Your task to perform on an android device: Set the phone to "Do not disturb". Image 0: 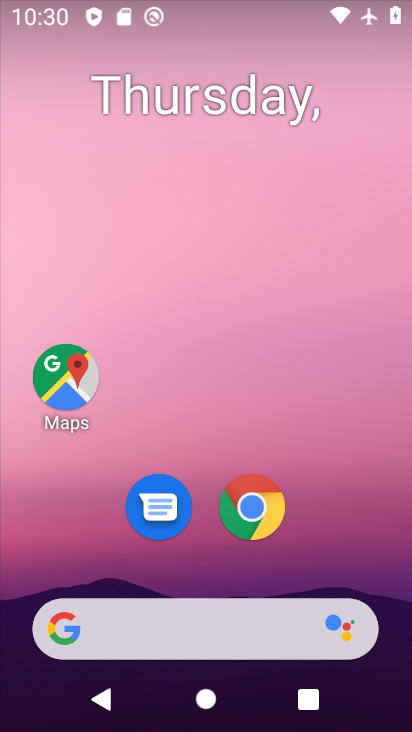
Step 0: drag from (341, 568) to (316, 21)
Your task to perform on an android device: Set the phone to "Do not disturb". Image 1: 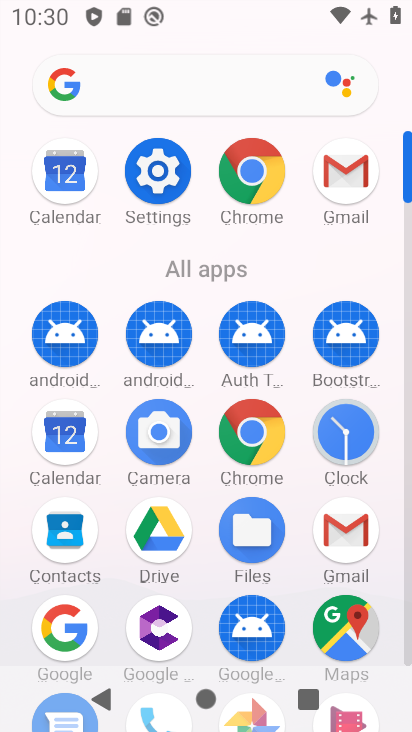
Step 1: drag from (11, 559) to (11, 224)
Your task to perform on an android device: Set the phone to "Do not disturb". Image 2: 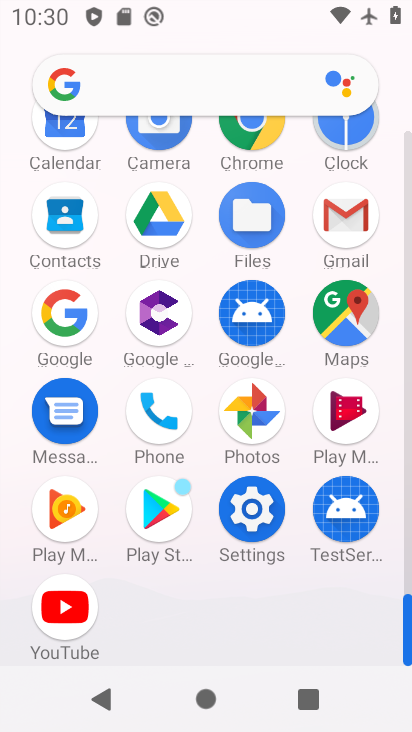
Step 2: click (249, 506)
Your task to perform on an android device: Set the phone to "Do not disturb". Image 3: 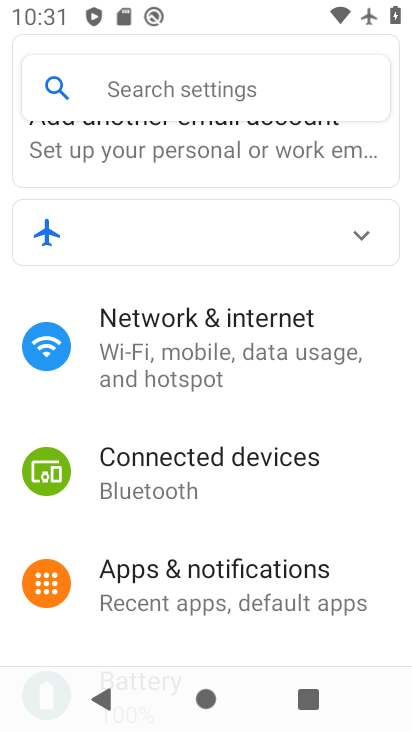
Step 3: drag from (293, 608) to (329, 178)
Your task to perform on an android device: Set the phone to "Do not disturb". Image 4: 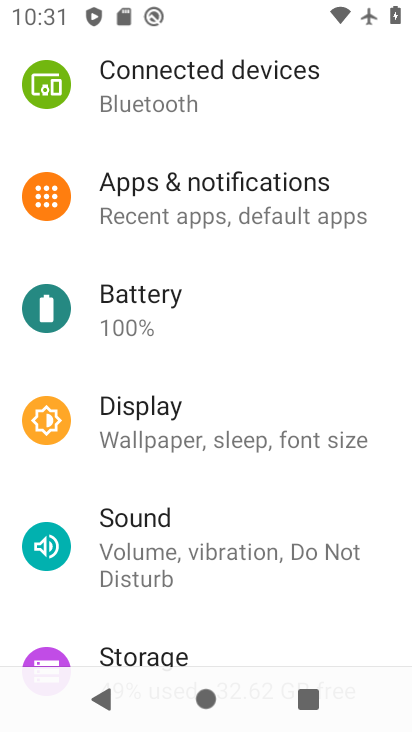
Step 4: click (198, 543)
Your task to perform on an android device: Set the phone to "Do not disturb". Image 5: 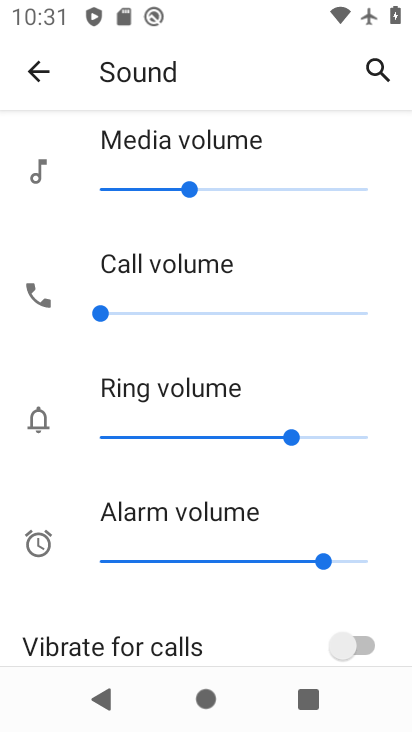
Step 5: drag from (211, 595) to (238, 84)
Your task to perform on an android device: Set the phone to "Do not disturb". Image 6: 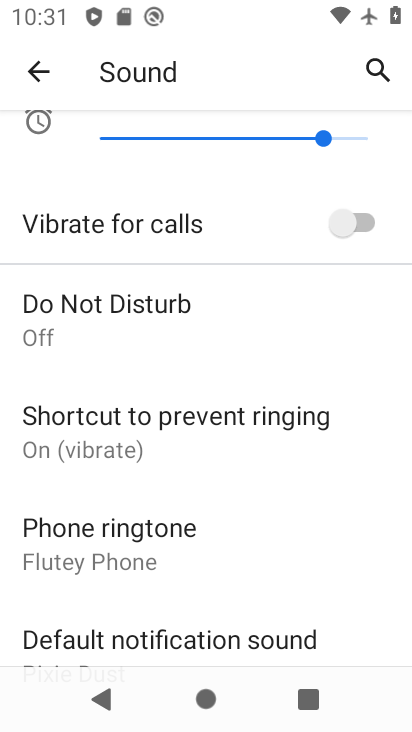
Step 6: drag from (200, 545) to (228, 226)
Your task to perform on an android device: Set the phone to "Do not disturb". Image 7: 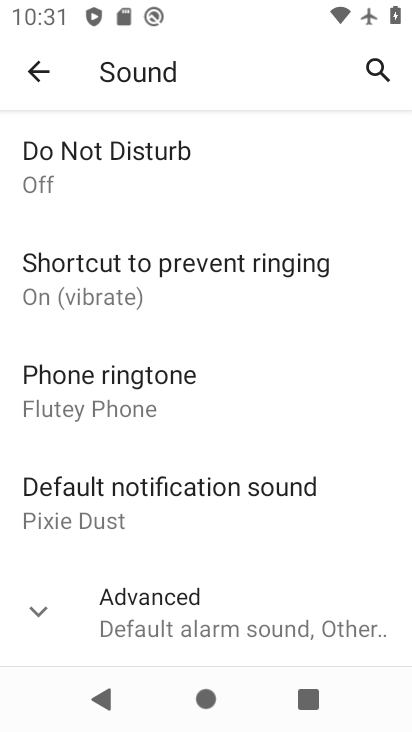
Step 7: click (152, 148)
Your task to perform on an android device: Set the phone to "Do not disturb". Image 8: 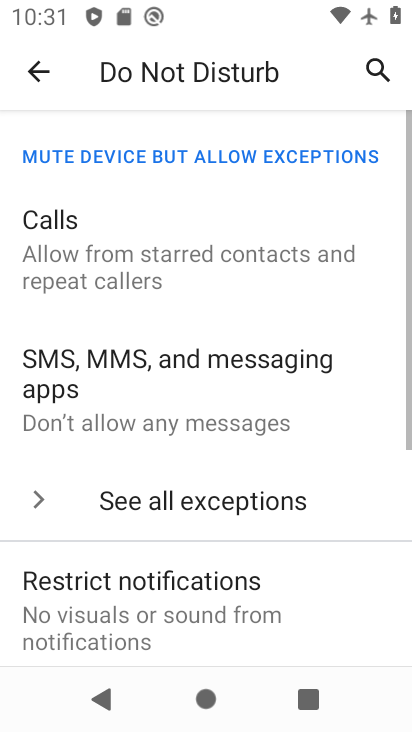
Step 8: drag from (262, 602) to (309, 113)
Your task to perform on an android device: Set the phone to "Do not disturb". Image 9: 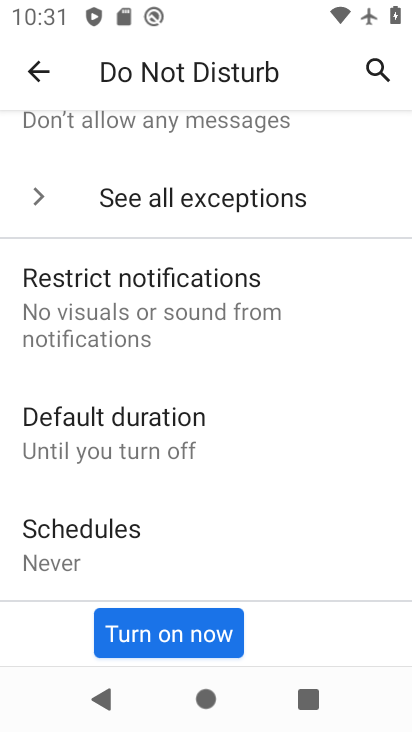
Step 9: click (167, 633)
Your task to perform on an android device: Set the phone to "Do not disturb". Image 10: 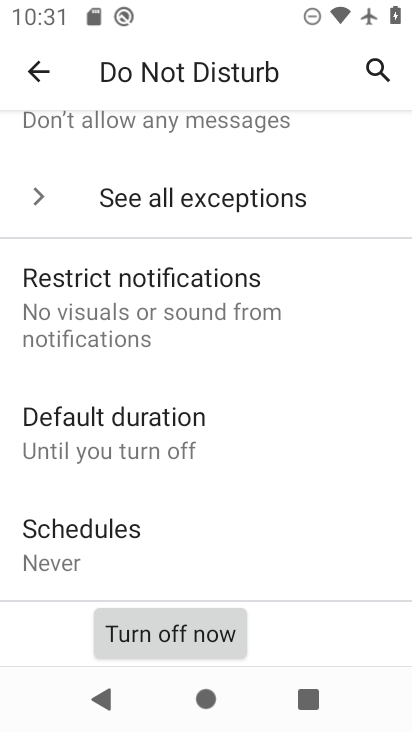
Step 10: task complete